Your task to perform on an android device: all mails in gmail Image 0: 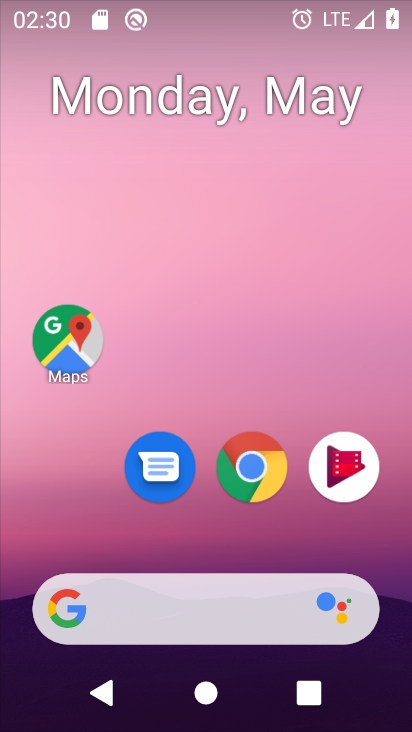
Step 0: drag from (260, 458) to (269, 228)
Your task to perform on an android device: all mails in gmail Image 1: 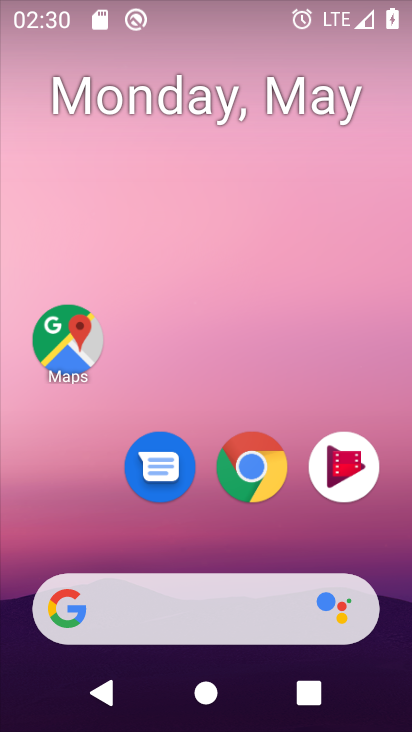
Step 1: drag from (215, 544) to (268, 127)
Your task to perform on an android device: all mails in gmail Image 2: 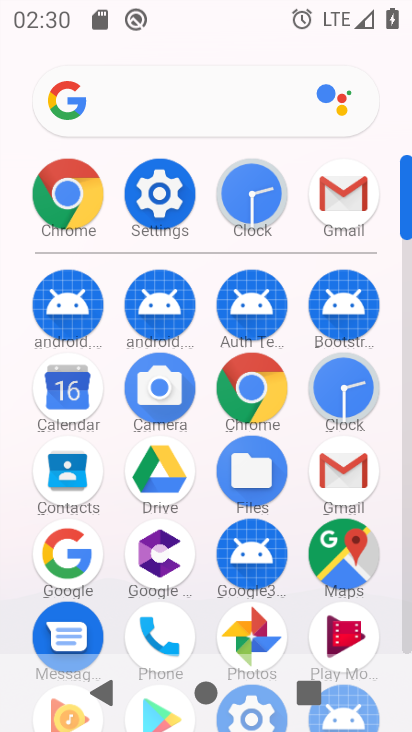
Step 2: click (338, 196)
Your task to perform on an android device: all mails in gmail Image 3: 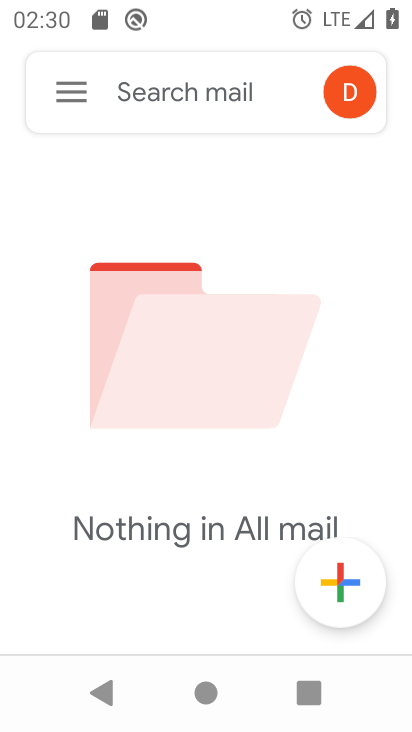
Step 3: click (75, 90)
Your task to perform on an android device: all mails in gmail Image 4: 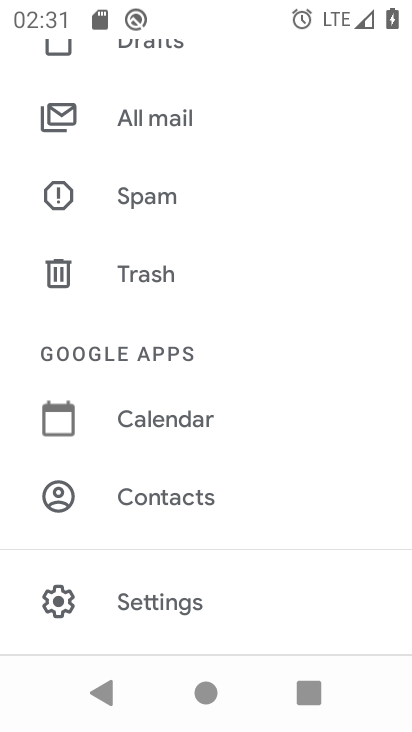
Step 4: click (186, 116)
Your task to perform on an android device: all mails in gmail Image 5: 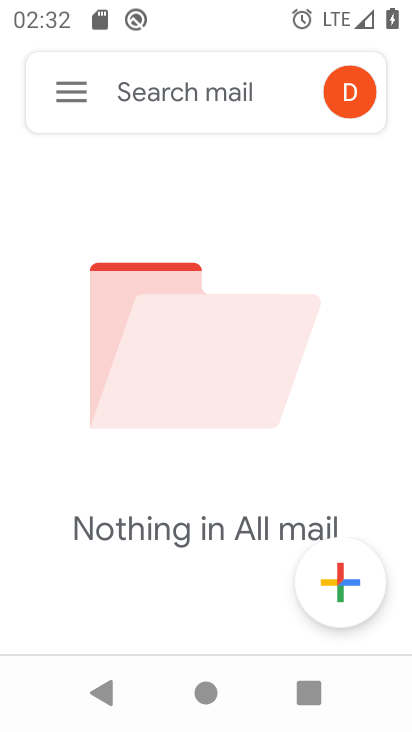
Step 5: task complete